Your task to perform on an android device: turn on wifi Image 0: 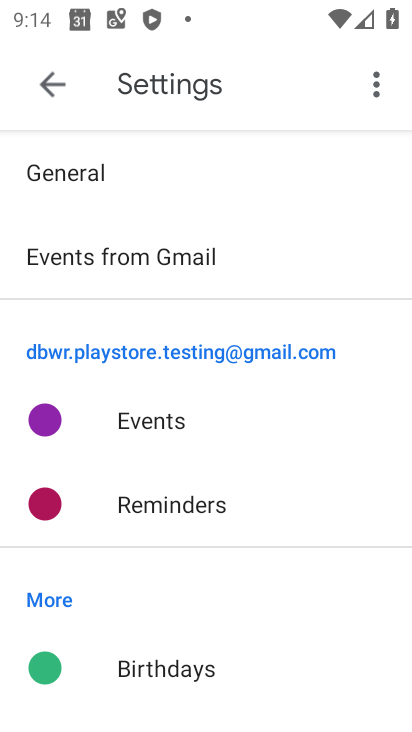
Step 0: press home button
Your task to perform on an android device: turn on wifi Image 1: 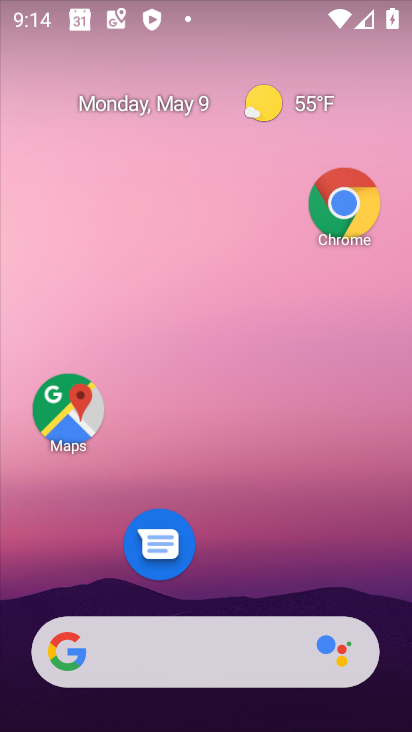
Step 1: drag from (236, 580) to (238, 222)
Your task to perform on an android device: turn on wifi Image 2: 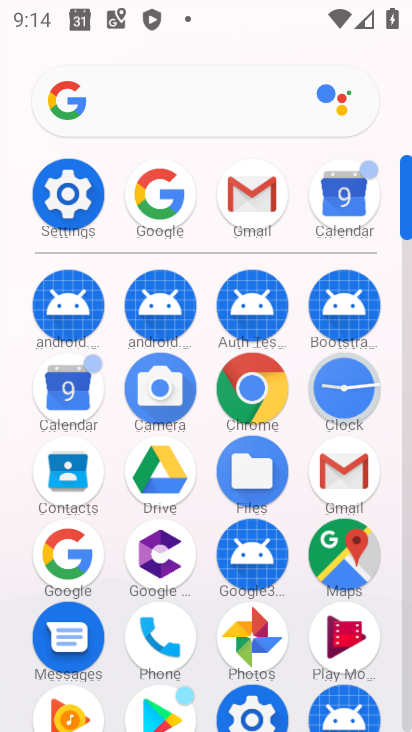
Step 2: click (63, 217)
Your task to perform on an android device: turn on wifi Image 3: 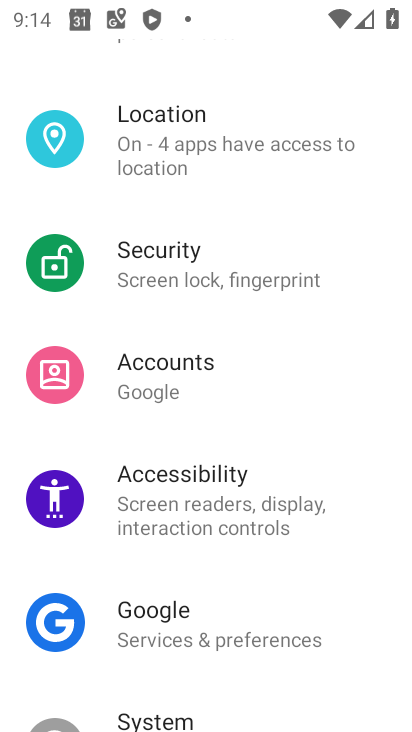
Step 3: drag from (126, 192) to (160, 540)
Your task to perform on an android device: turn on wifi Image 4: 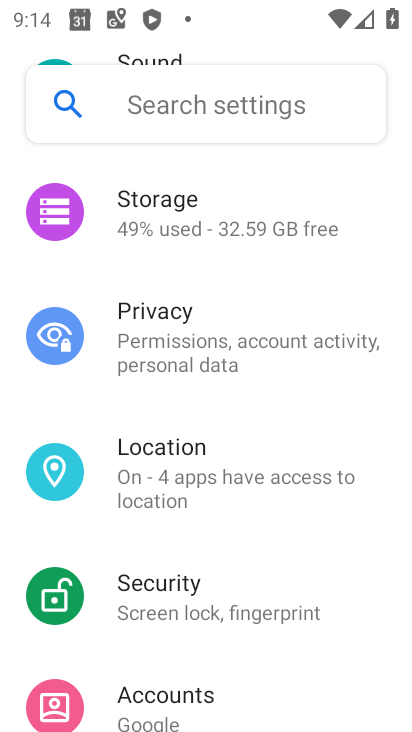
Step 4: drag from (188, 248) to (178, 564)
Your task to perform on an android device: turn on wifi Image 5: 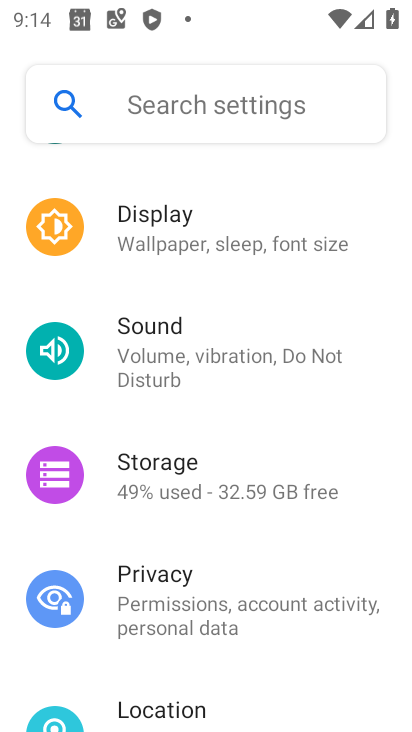
Step 5: drag from (174, 206) to (209, 537)
Your task to perform on an android device: turn on wifi Image 6: 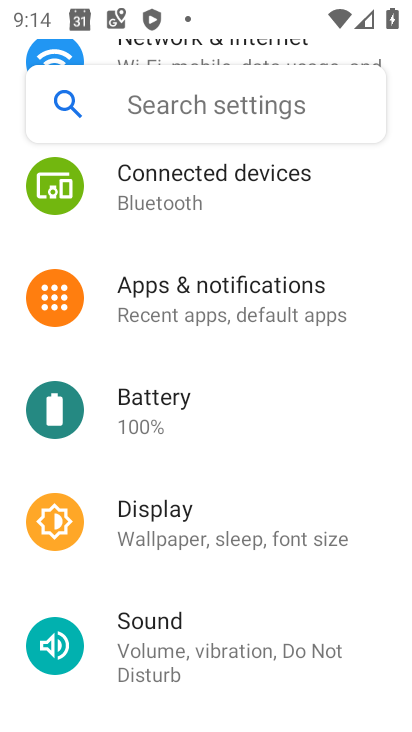
Step 6: drag from (230, 250) to (231, 584)
Your task to perform on an android device: turn on wifi Image 7: 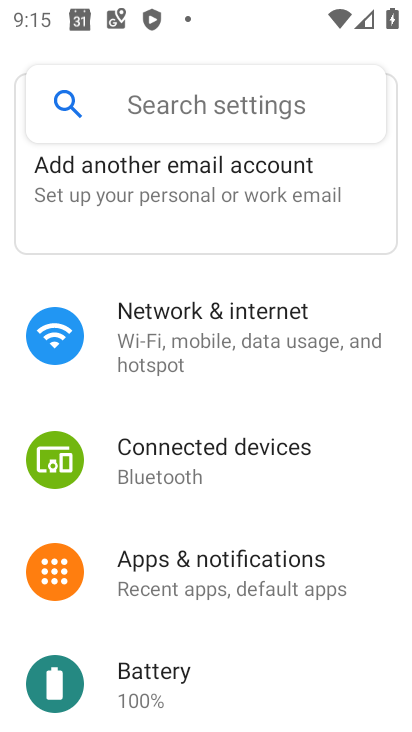
Step 7: click (255, 319)
Your task to perform on an android device: turn on wifi Image 8: 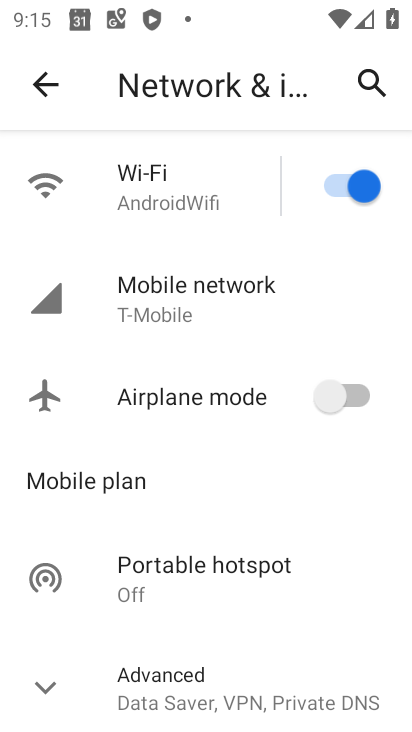
Step 8: task complete